Your task to perform on an android device: Open Google Image 0: 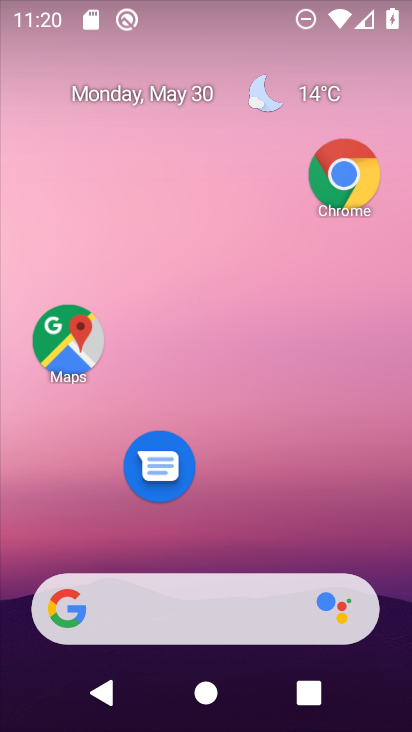
Step 0: click (96, 609)
Your task to perform on an android device: Open Google Image 1: 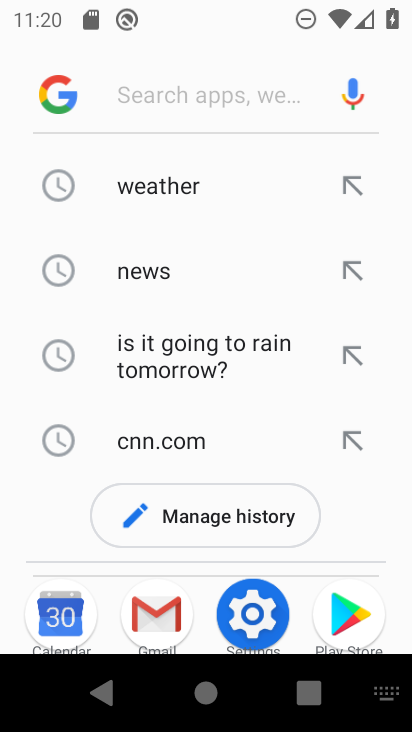
Step 1: task complete